Your task to perform on an android device: visit the assistant section in the google photos Image 0: 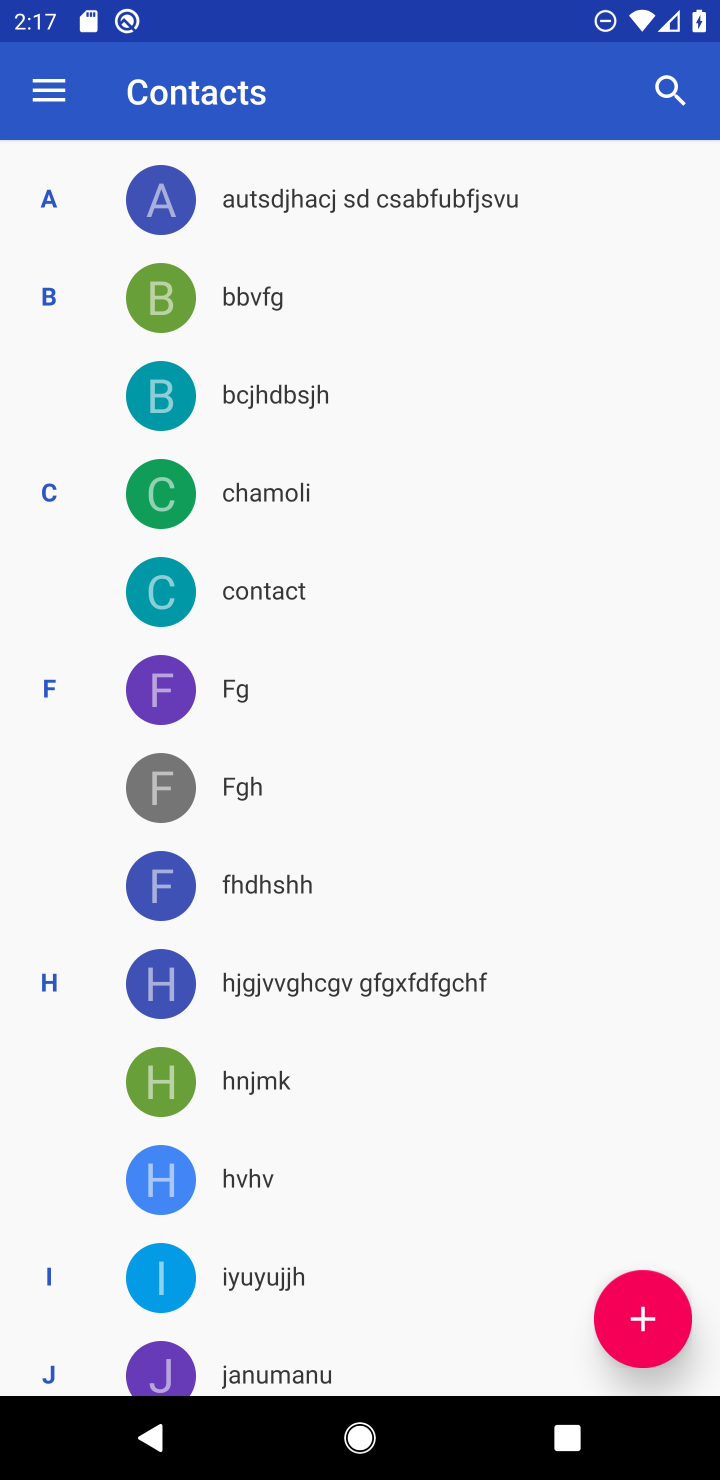
Step 0: press home button
Your task to perform on an android device: visit the assistant section in the google photos Image 1: 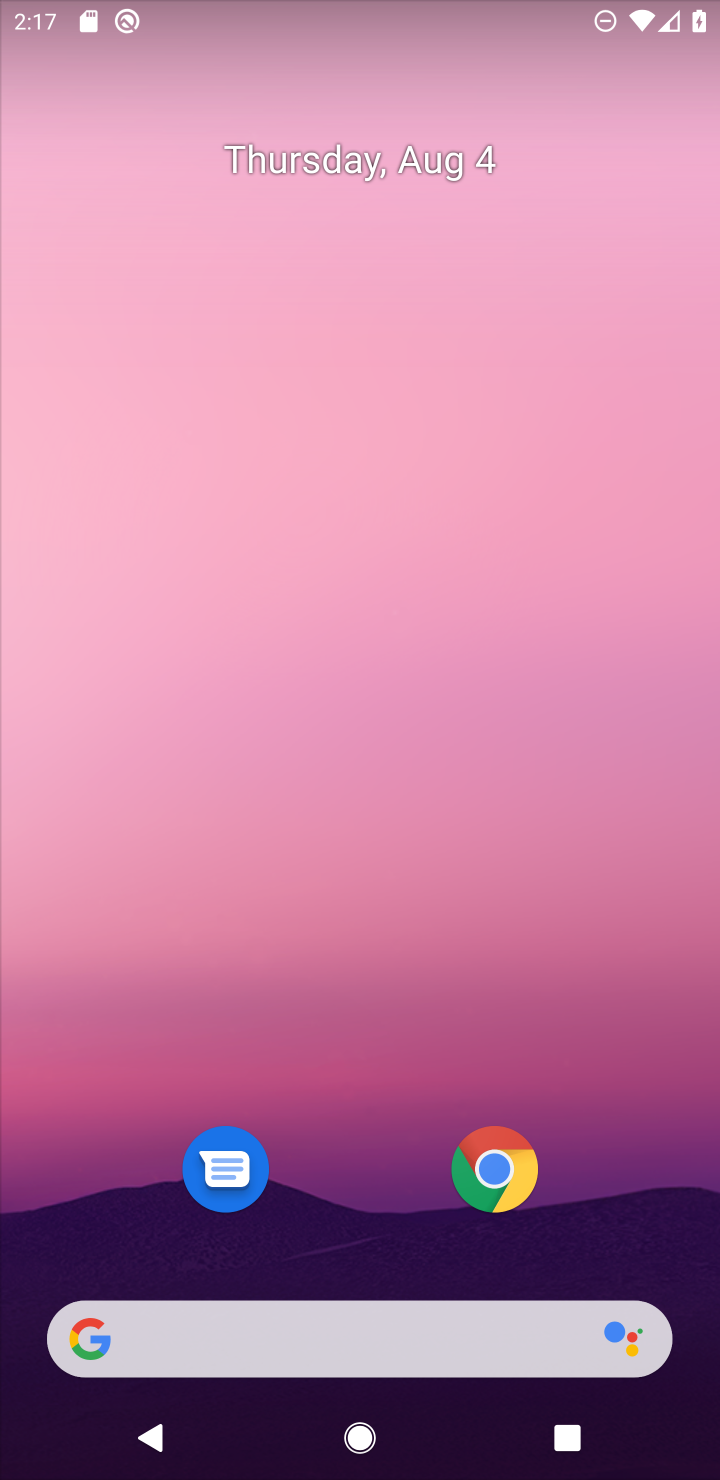
Step 1: drag from (342, 1220) to (396, 20)
Your task to perform on an android device: visit the assistant section in the google photos Image 2: 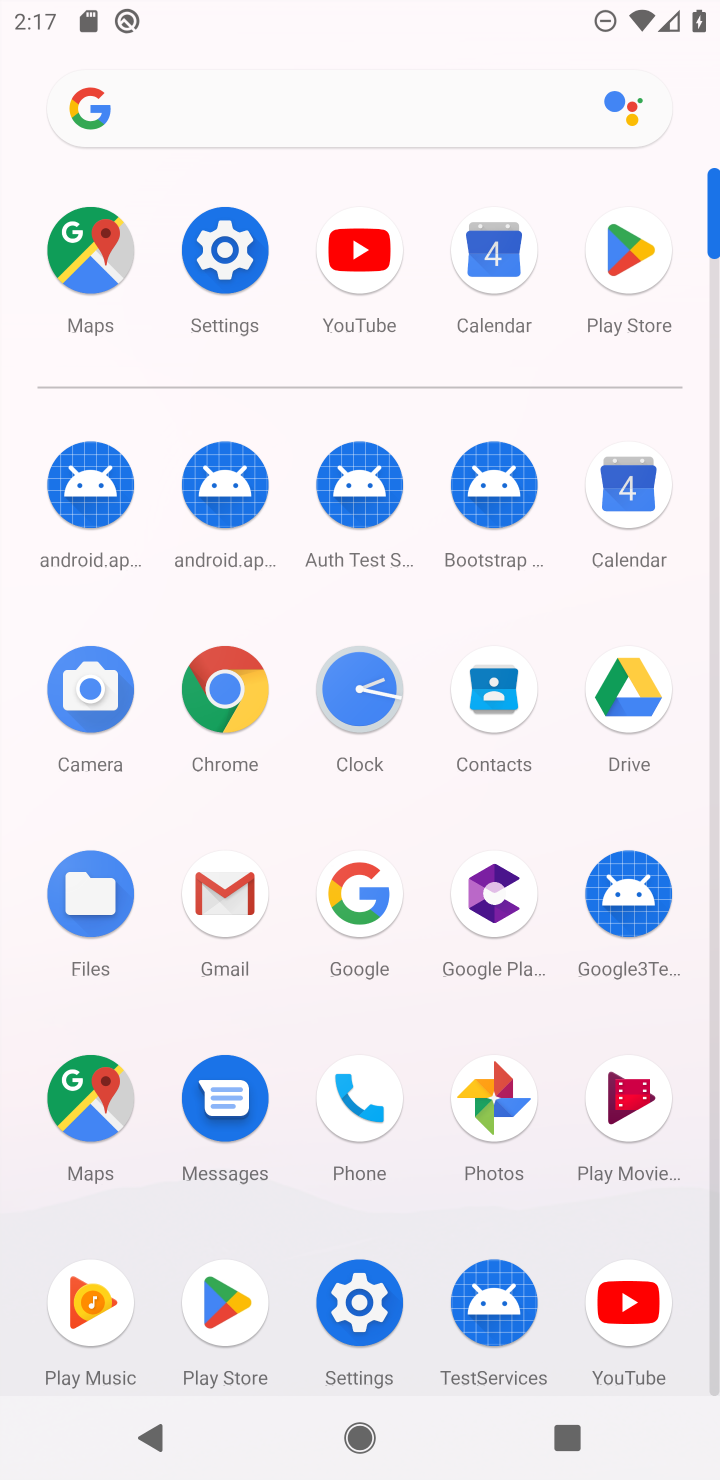
Step 2: click (489, 1106)
Your task to perform on an android device: visit the assistant section in the google photos Image 3: 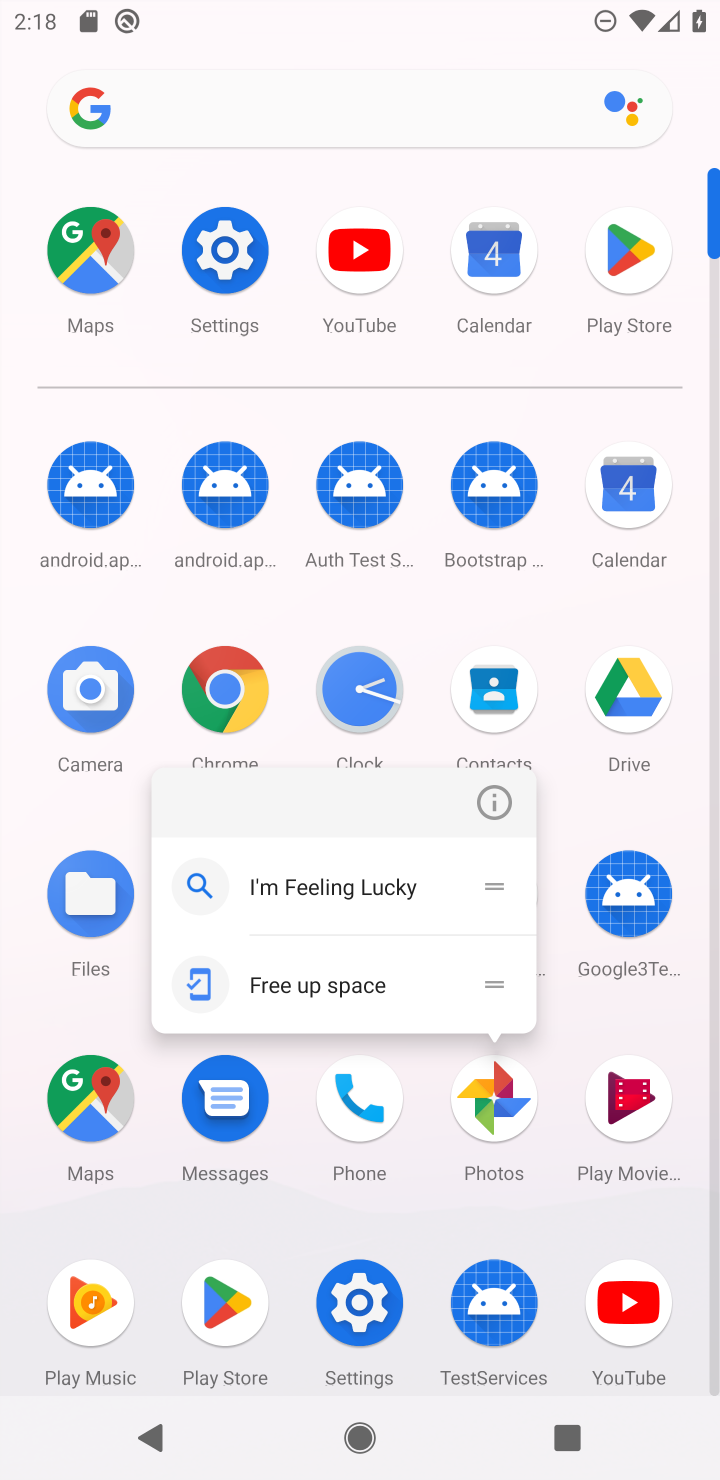
Step 3: click (489, 1106)
Your task to perform on an android device: visit the assistant section in the google photos Image 4: 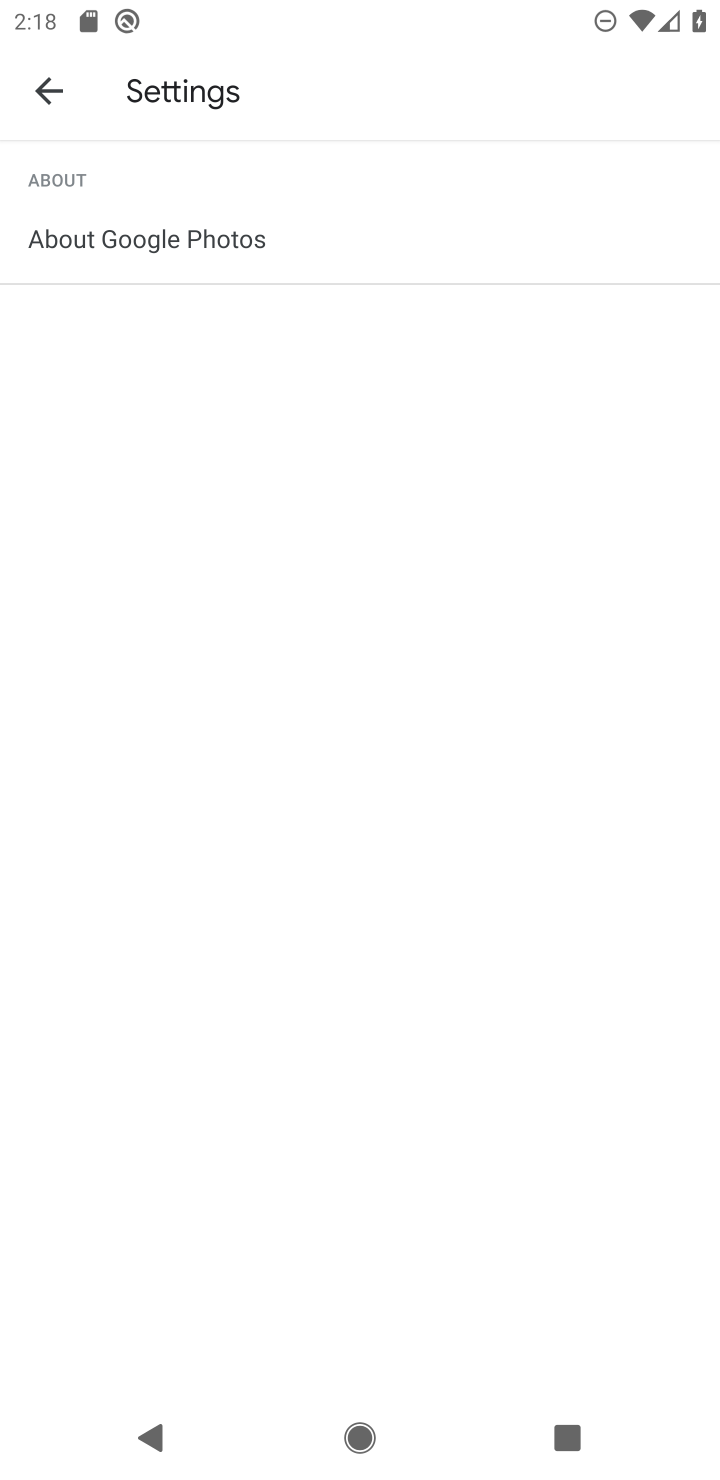
Step 4: click (74, 99)
Your task to perform on an android device: visit the assistant section in the google photos Image 5: 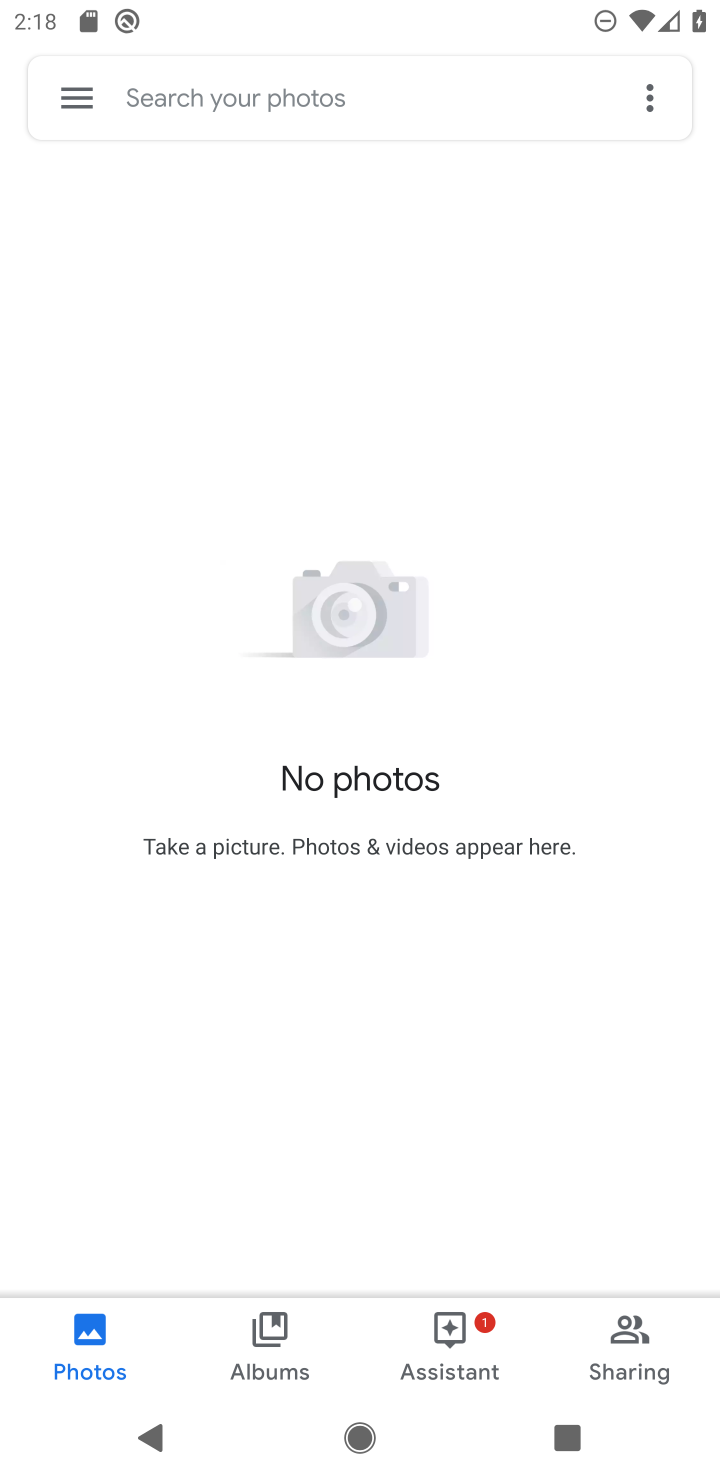
Step 5: click (435, 1358)
Your task to perform on an android device: visit the assistant section in the google photos Image 6: 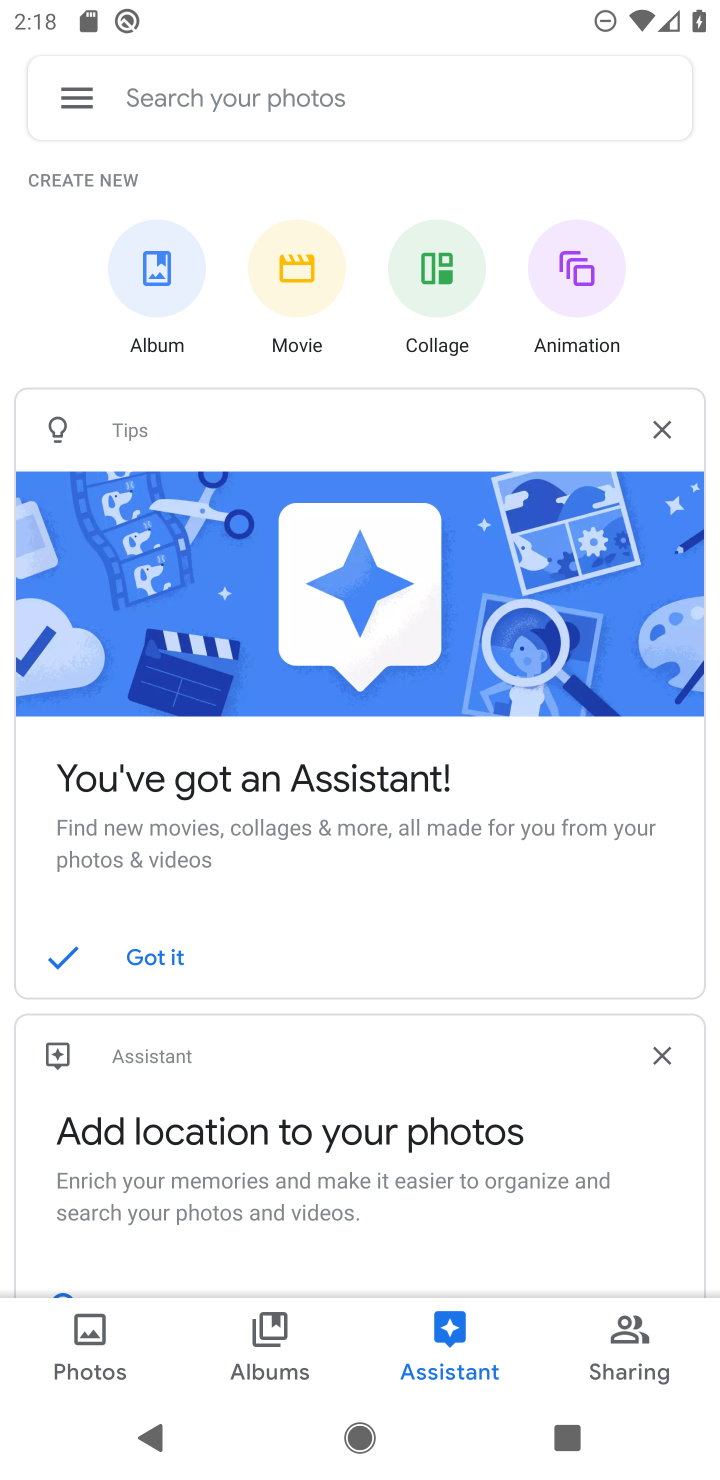
Step 6: task complete